Your task to perform on an android device: turn off notifications in google photos Image 0: 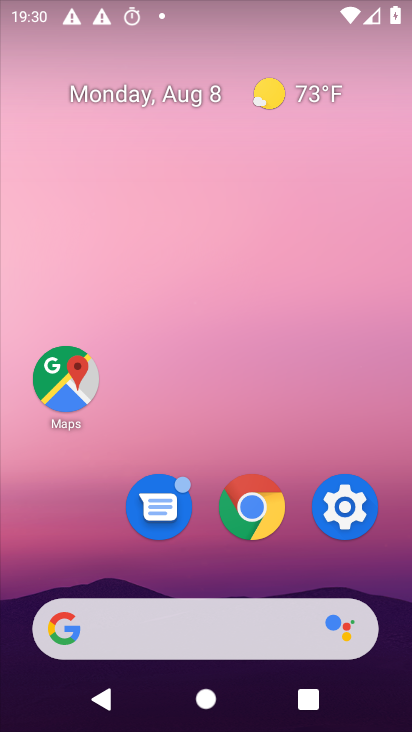
Step 0: drag from (306, 641) to (254, 162)
Your task to perform on an android device: turn off notifications in google photos Image 1: 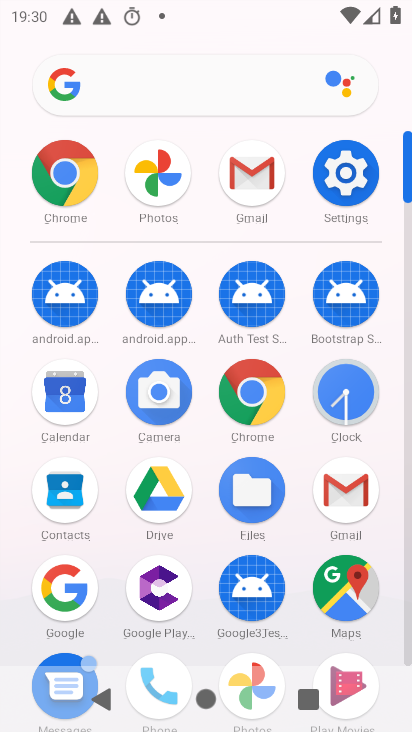
Step 1: click (164, 172)
Your task to perform on an android device: turn off notifications in google photos Image 2: 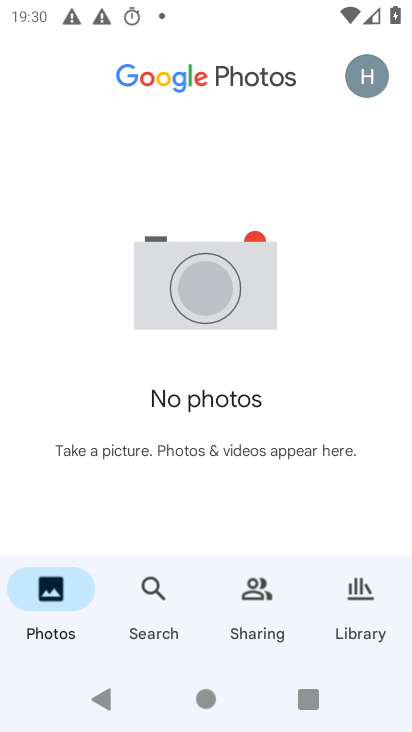
Step 2: click (361, 84)
Your task to perform on an android device: turn off notifications in google photos Image 3: 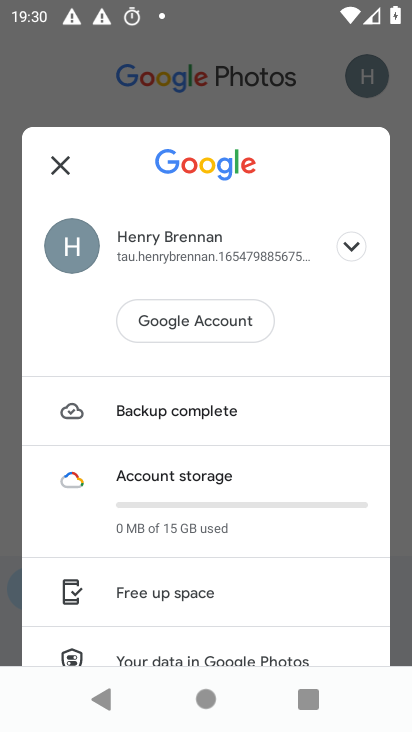
Step 3: drag from (200, 582) to (229, 344)
Your task to perform on an android device: turn off notifications in google photos Image 4: 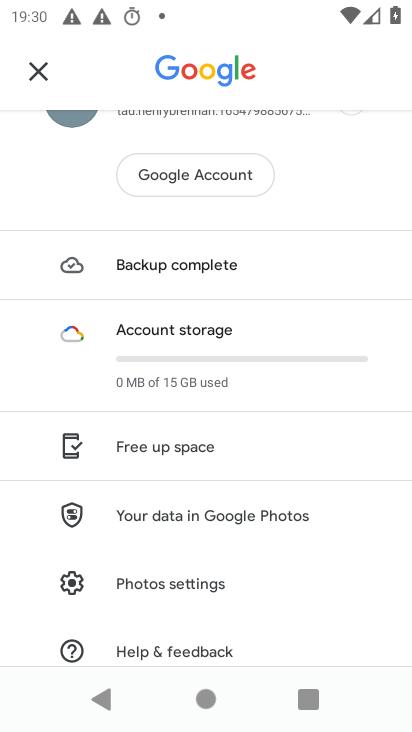
Step 4: click (175, 589)
Your task to perform on an android device: turn off notifications in google photos Image 5: 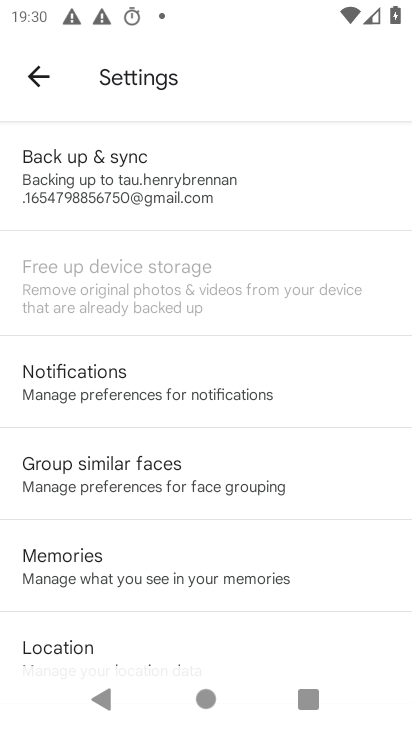
Step 5: click (90, 372)
Your task to perform on an android device: turn off notifications in google photos Image 6: 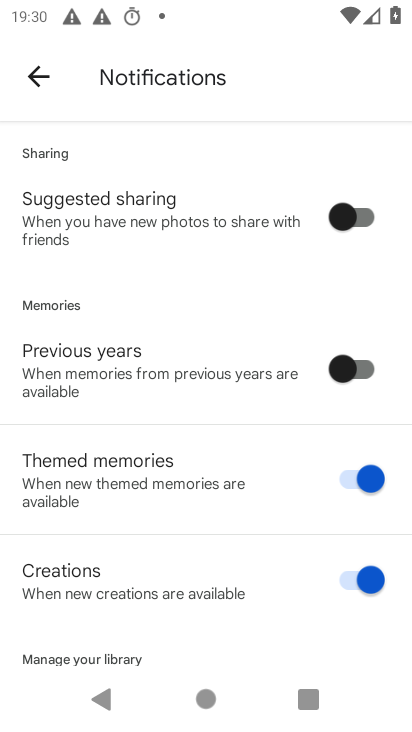
Step 6: drag from (165, 514) to (163, 336)
Your task to perform on an android device: turn off notifications in google photos Image 7: 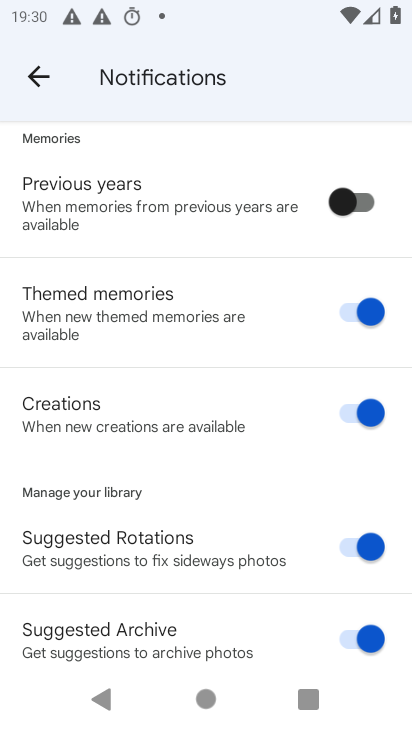
Step 7: drag from (153, 567) to (152, 338)
Your task to perform on an android device: turn off notifications in google photos Image 8: 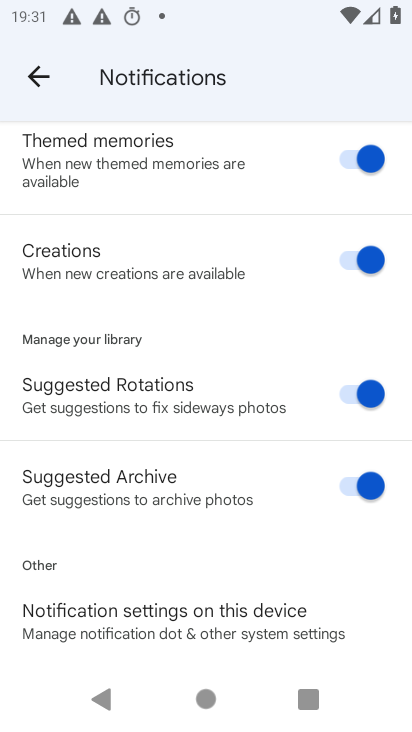
Step 8: drag from (162, 547) to (206, 328)
Your task to perform on an android device: turn off notifications in google photos Image 9: 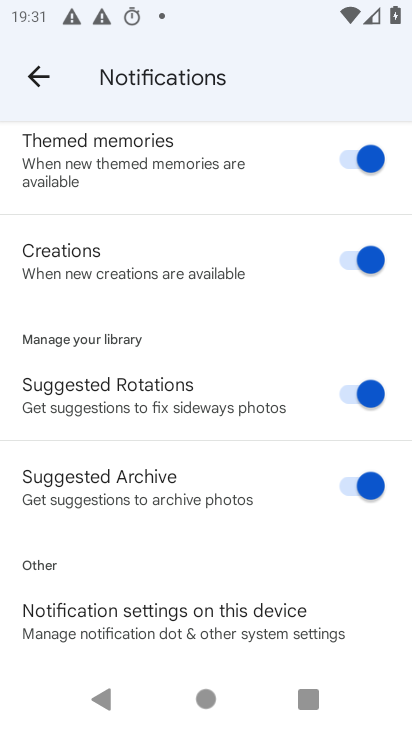
Step 9: click (177, 603)
Your task to perform on an android device: turn off notifications in google photos Image 10: 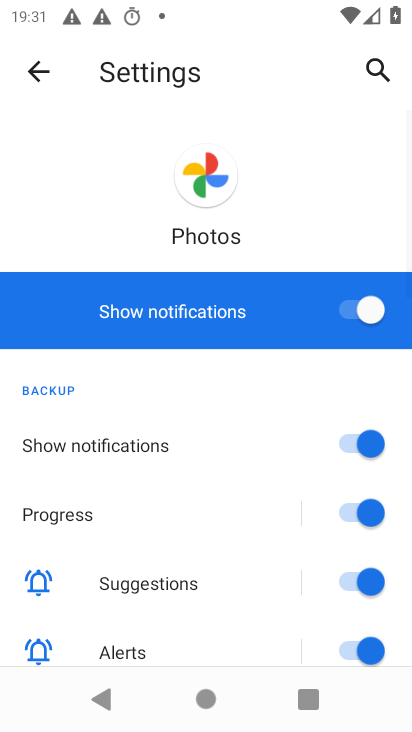
Step 10: click (324, 307)
Your task to perform on an android device: turn off notifications in google photos Image 11: 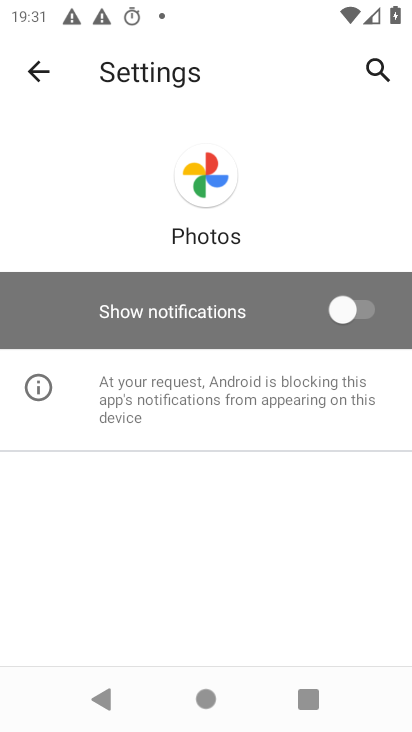
Step 11: task complete